Your task to perform on an android device: Open Wikipedia Image 0: 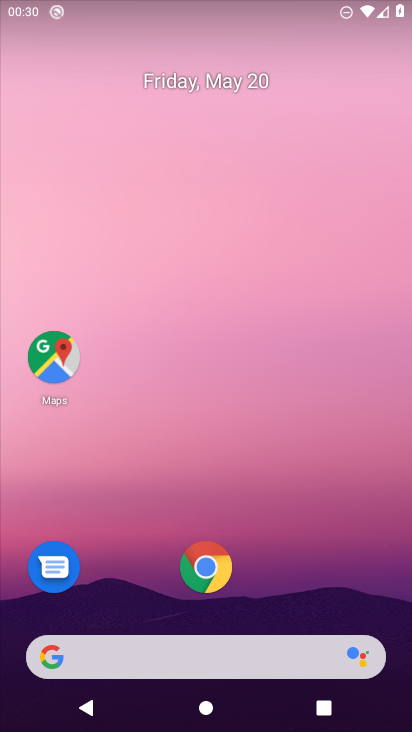
Step 0: press home button
Your task to perform on an android device: Open Wikipedia Image 1: 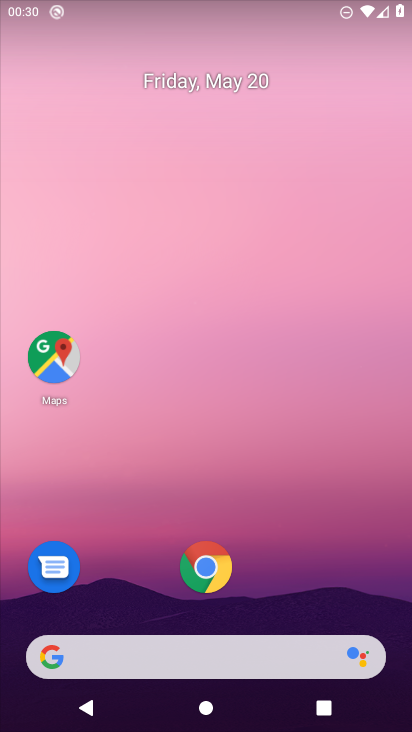
Step 1: drag from (291, 602) to (278, 34)
Your task to perform on an android device: Open Wikipedia Image 2: 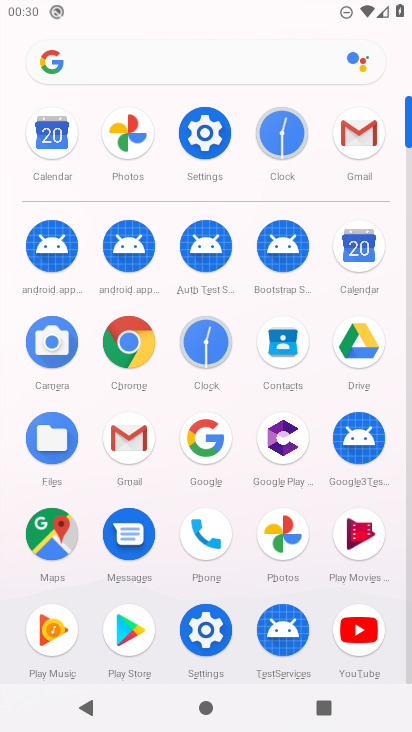
Step 2: click (127, 344)
Your task to perform on an android device: Open Wikipedia Image 3: 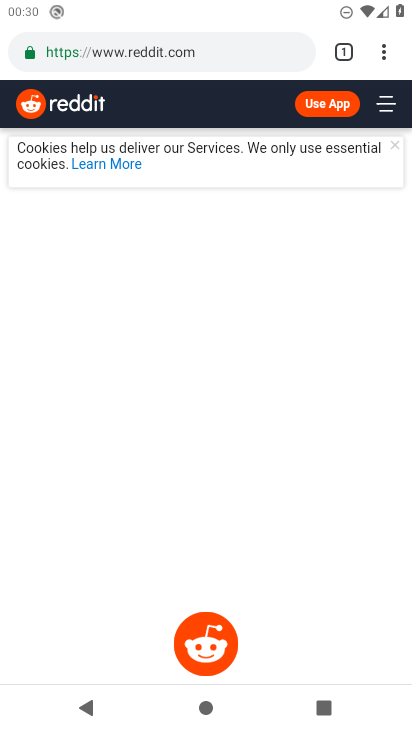
Step 3: click (339, 51)
Your task to perform on an android device: Open Wikipedia Image 4: 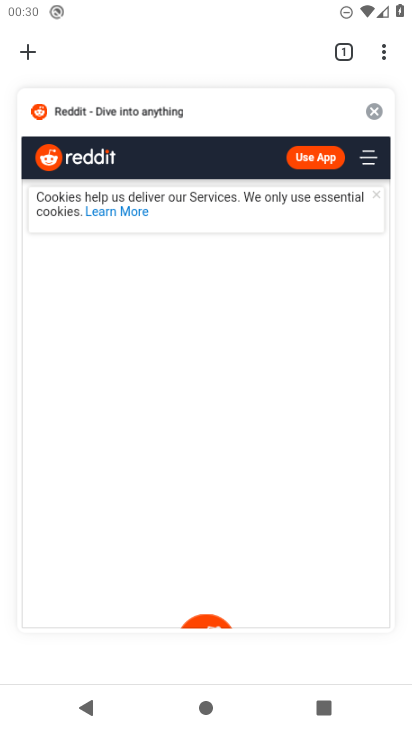
Step 4: click (28, 49)
Your task to perform on an android device: Open Wikipedia Image 5: 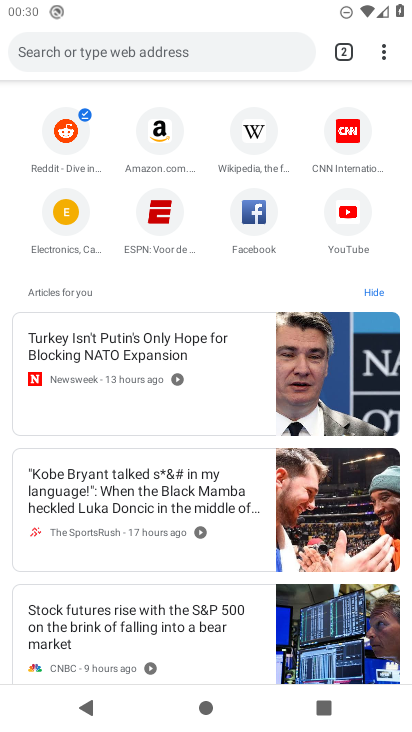
Step 5: click (248, 129)
Your task to perform on an android device: Open Wikipedia Image 6: 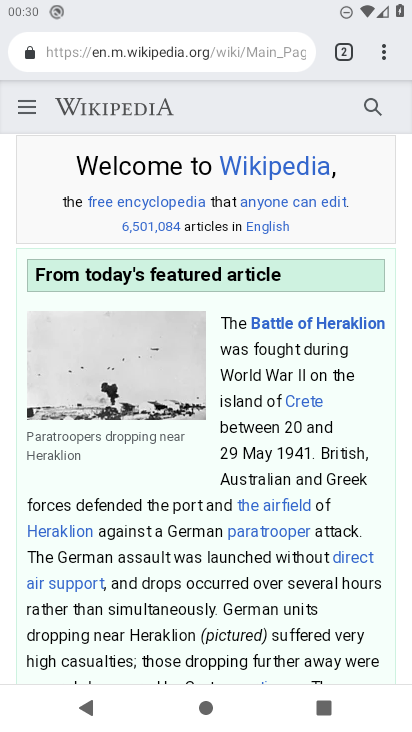
Step 6: task complete